Your task to perform on an android device: turn on showing notifications on the lock screen Image 0: 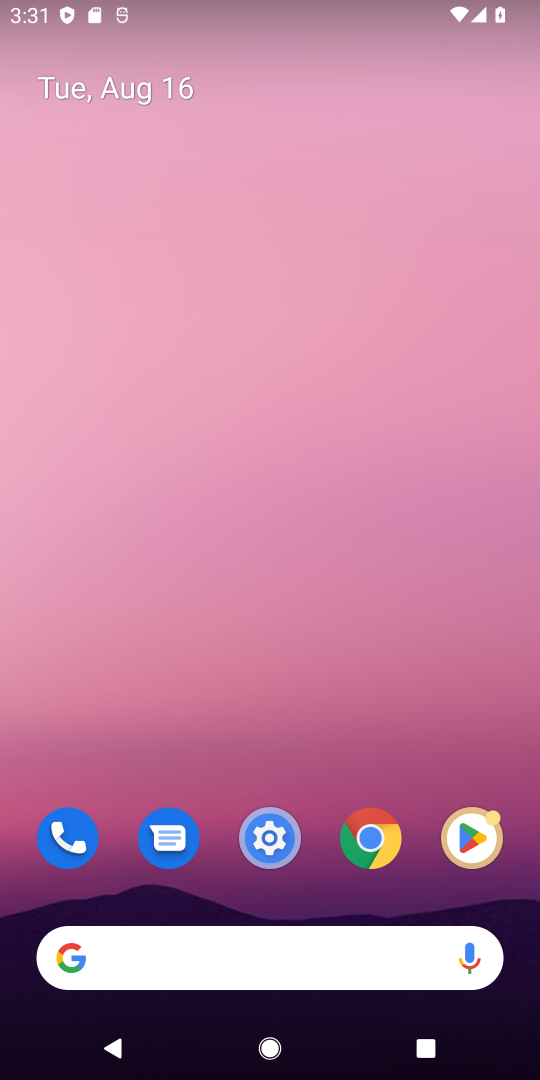
Step 0: drag from (277, 887) to (228, 131)
Your task to perform on an android device: turn on showing notifications on the lock screen Image 1: 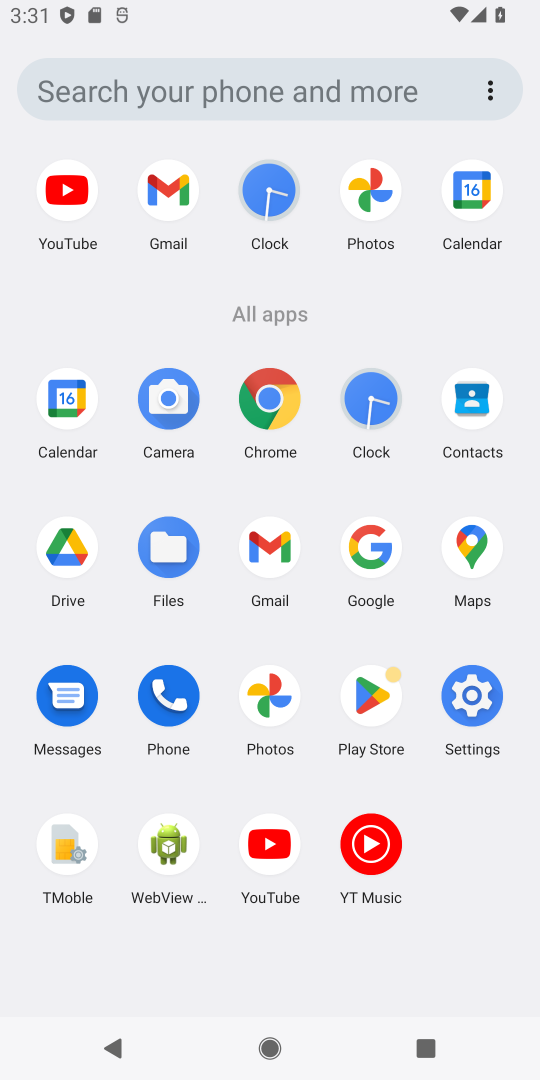
Step 1: click (479, 679)
Your task to perform on an android device: turn on showing notifications on the lock screen Image 2: 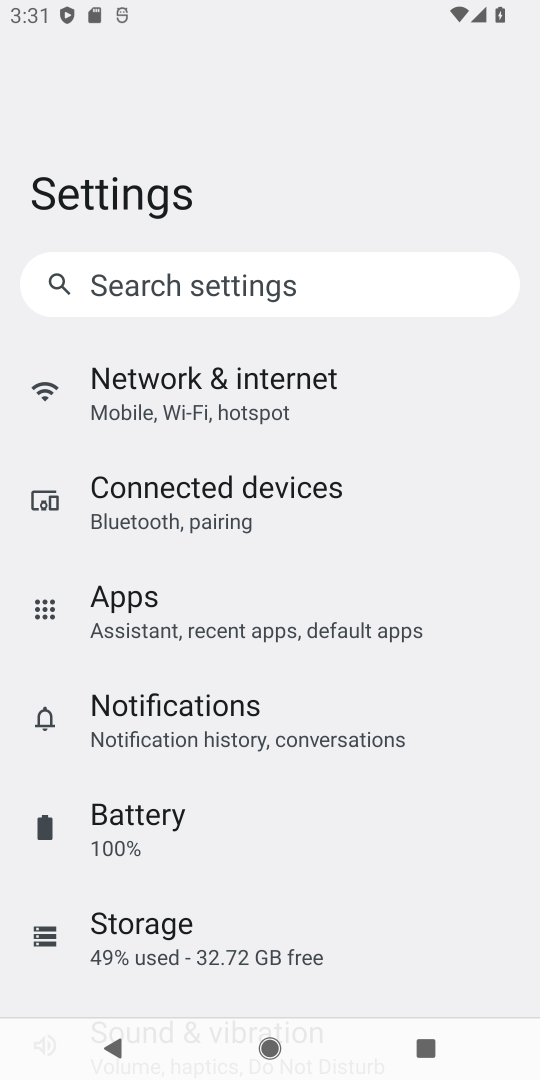
Step 2: click (200, 729)
Your task to perform on an android device: turn on showing notifications on the lock screen Image 3: 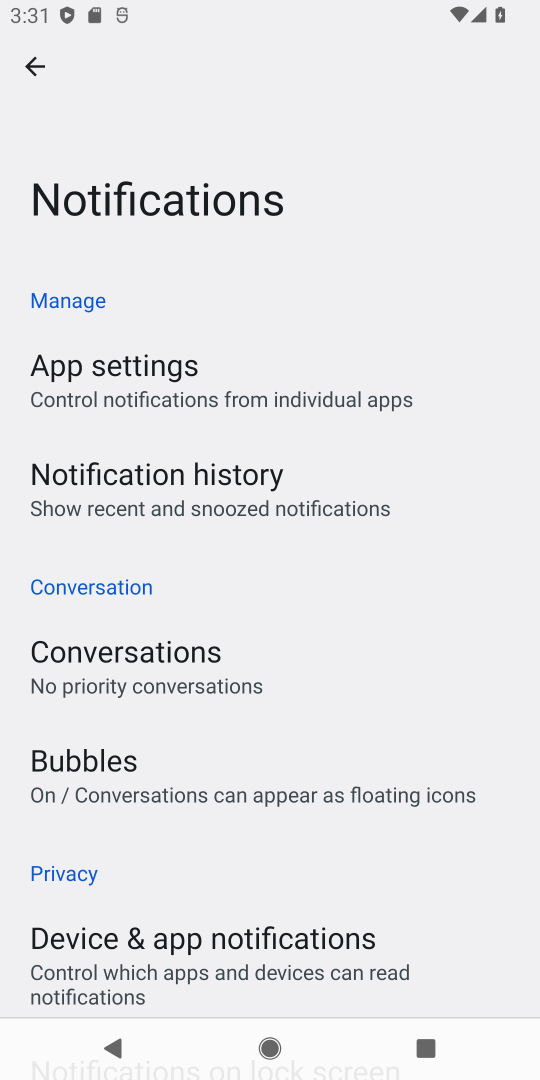
Step 3: drag from (228, 791) to (225, 198)
Your task to perform on an android device: turn on showing notifications on the lock screen Image 4: 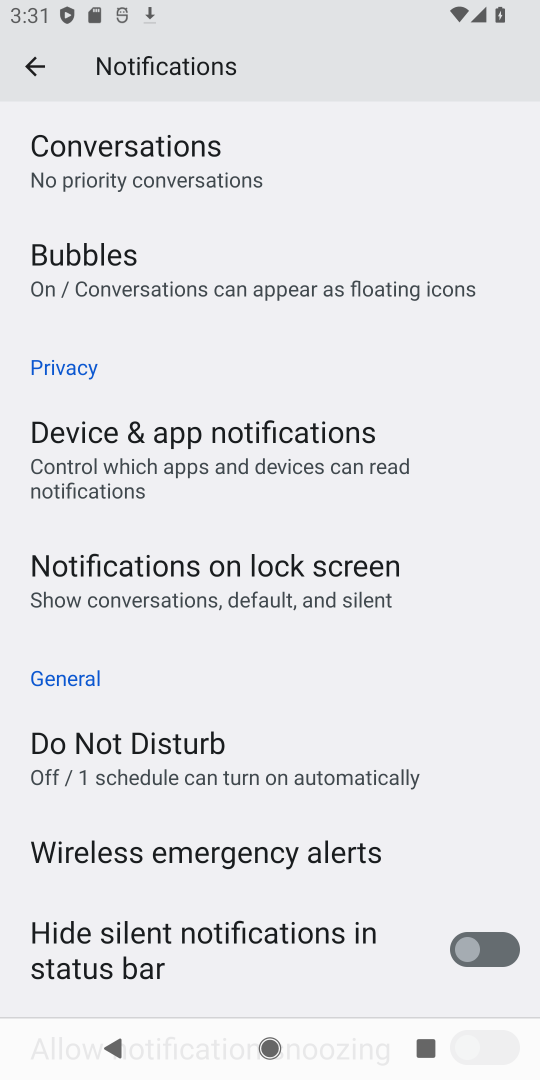
Step 4: click (283, 601)
Your task to perform on an android device: turn on showing notifications on the lock screen Image 5: 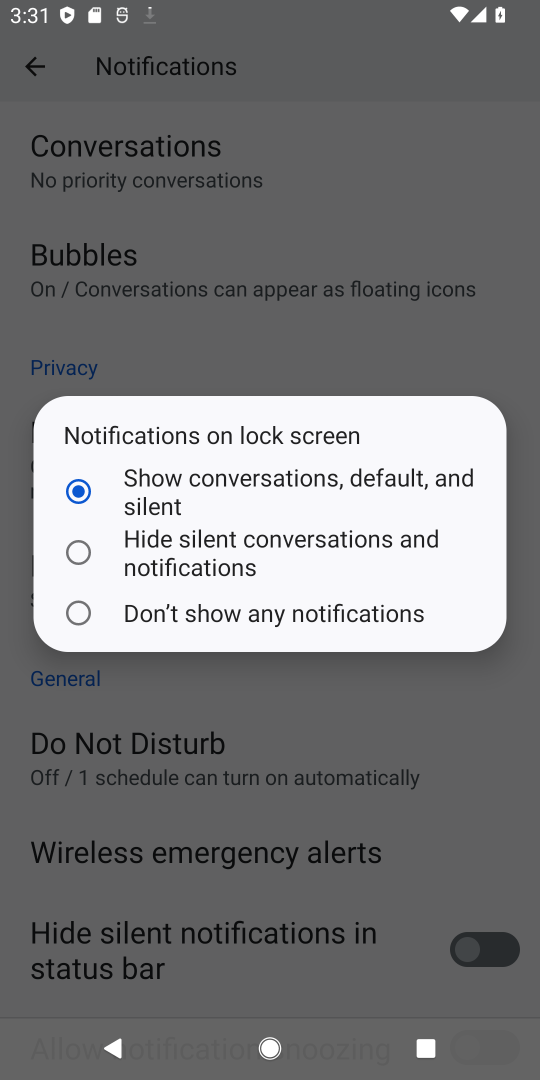
Step 5: click (162, 468)
Your task to perform on an android device: turn on showing notifications on the lock screen Image 6: 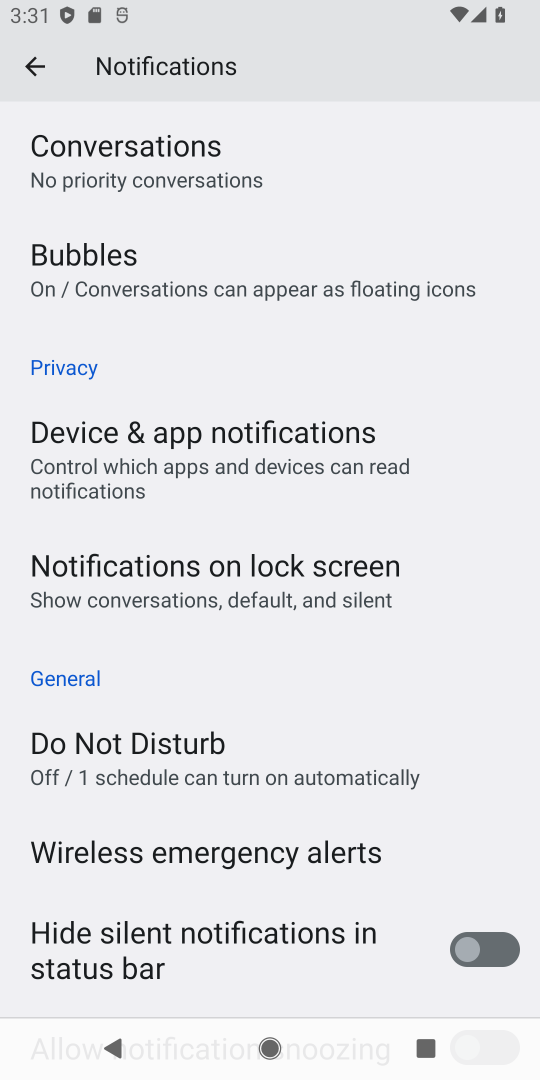
Step 6: task complete